Your task to perform on an android device: all mails in gmail Image 0: 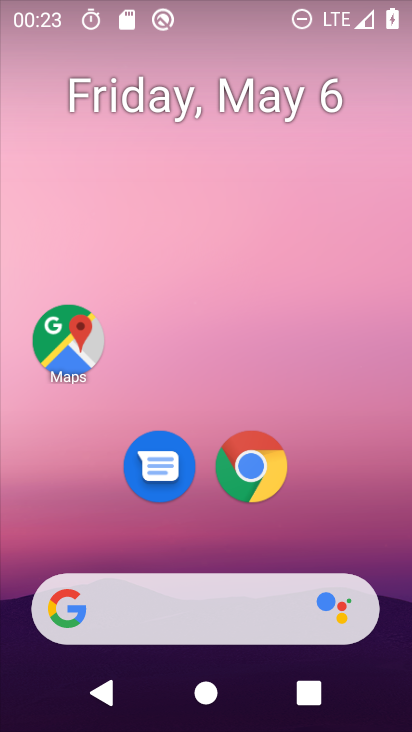
Step 0: drag from (163, 564) to (204, 181)
Your task to perform on an android device: all mails in gmail Image 1: 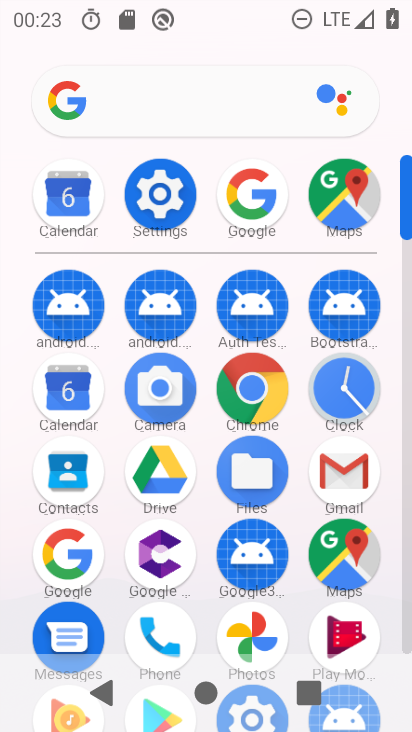
Step 1: click (327, 473)
Your task to perform on an android device: all mails in gmail Image 2: 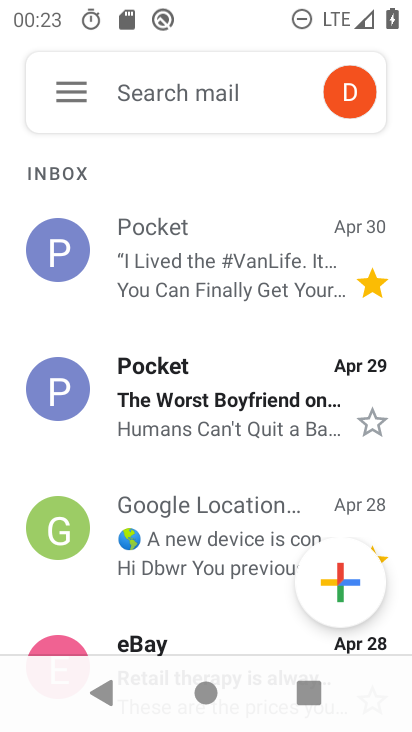
Step 2: click (61, 90)
Your task to perform on an android device: all mails in gmail Image 3: 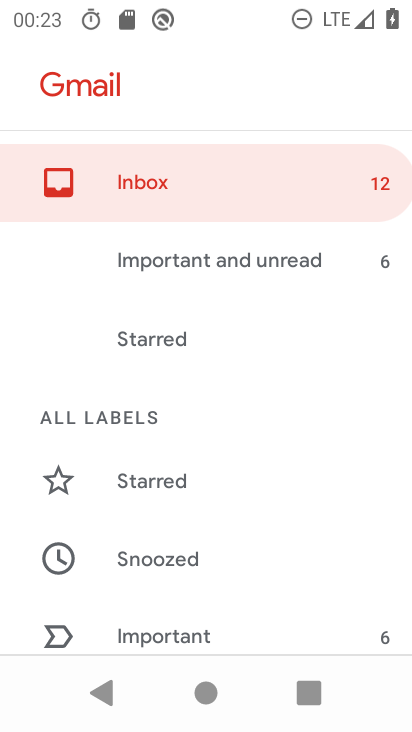
Step 3: drag from (146, 642) to (192, 285)
Your task to perform on an android device: all mails in gmail Image 4: 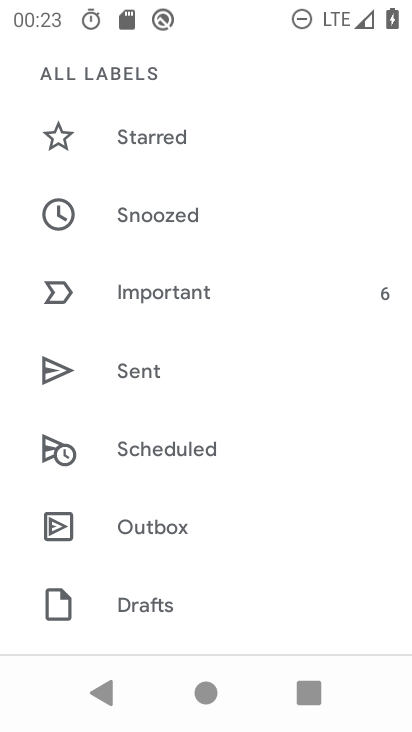
Step 4: drag from (160, 599) to (215, 220)
Your task to perform on an android device: all mails in gmail Image 5: 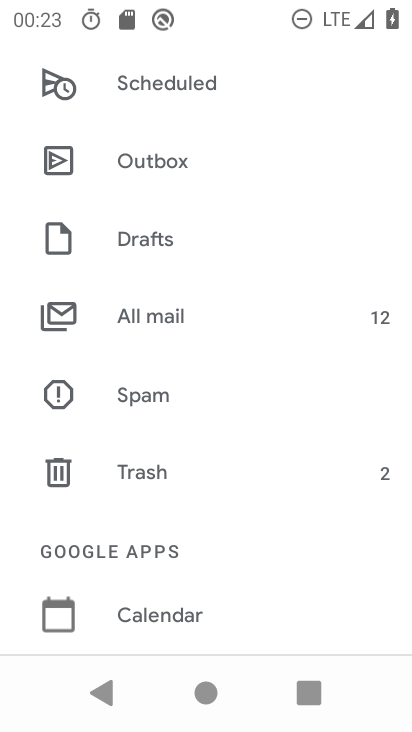
Step 5: click (155, 315)
Your task to perform on an android device: all mails in gmail Image 6: 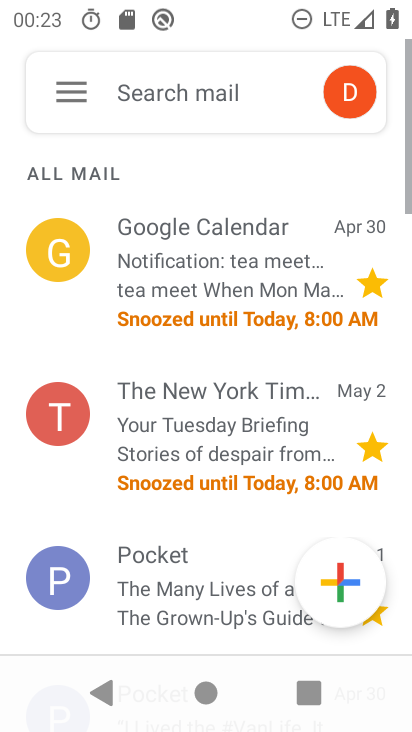
Step 6: task complete